Your task to perform on an android device: Open Android settings Image 0: 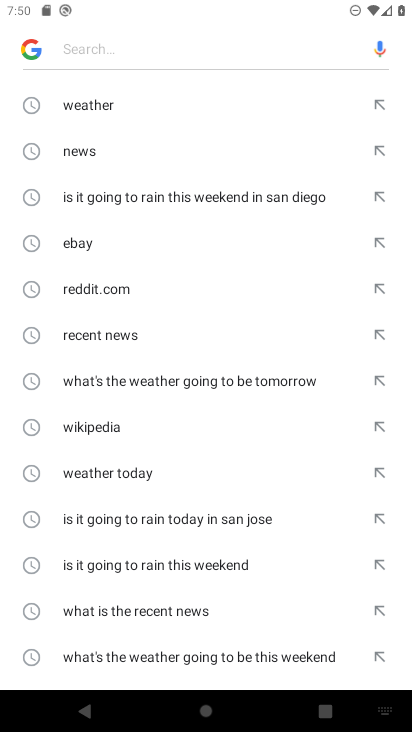
Step 0: press back button
Your task to perform on an android device: Open Android settings Image 1: 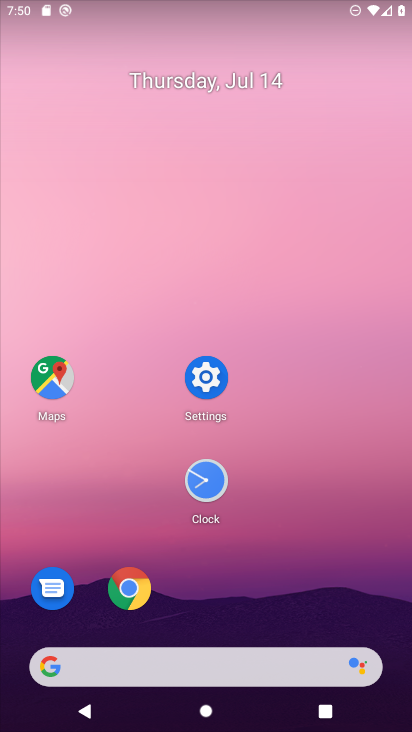
Step 1: click (210, 371)
Your task to perform on an android device: Open Android settings Image 2: 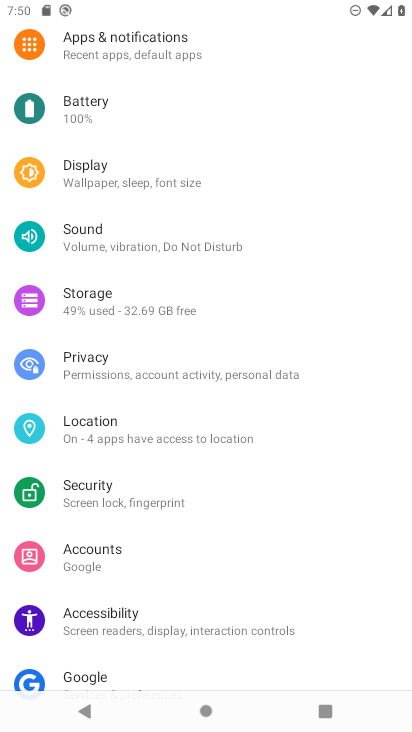
Step 2: task complete